Your task to perform on an android device: snooze an email in the gmail app Image 0: 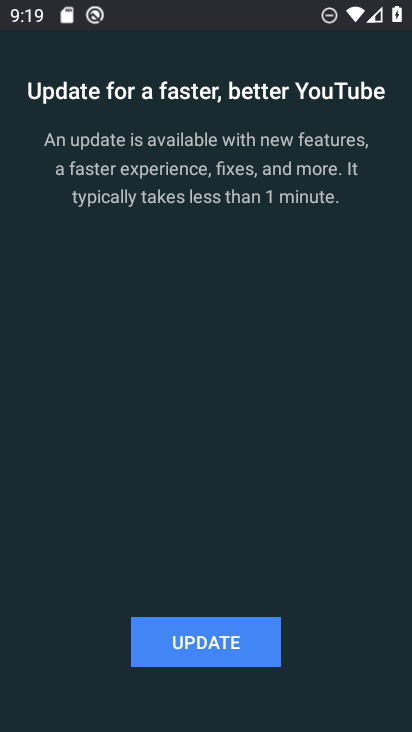
Step 0: press home button
Your task to perform on an android device: snooze an email in the gmail app Image 1: 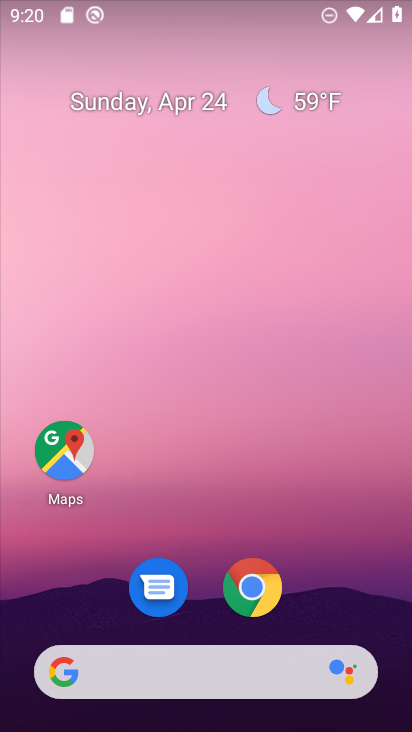
Step 1: drag from (206, 514) to (227, 47)
Your task to perform on an android device: snooze an email in the gmail app Image 2: 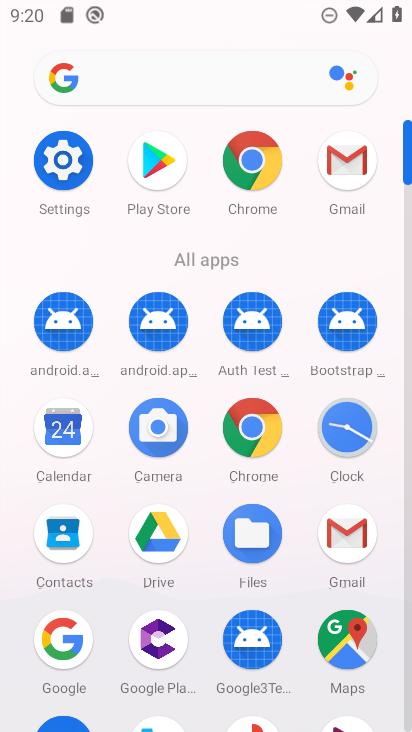
Step 2: click (344, 158)
Your task to perform on an android device: snooze an email in the gmail app Image 3: 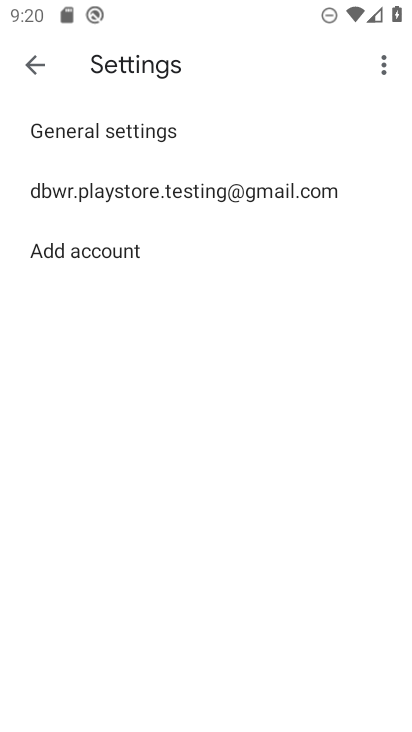
Step 3: press back button
Your task to perform on an android device: snooze an email in the gmail app Image 4: 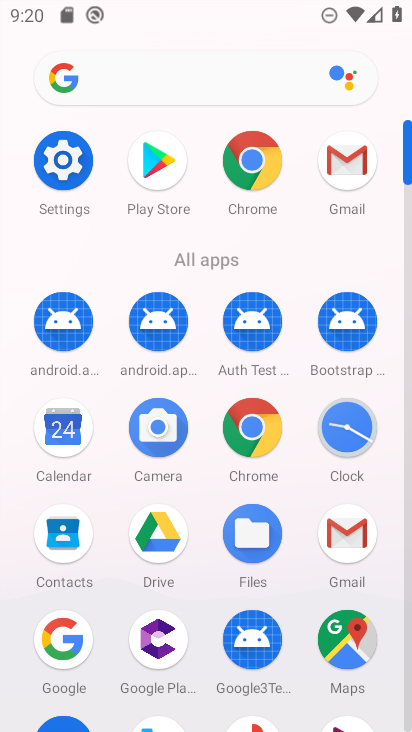
Step 4: click (345, 160)
Your task to perform on an android device: snooze an email in the gmail app Image 5: 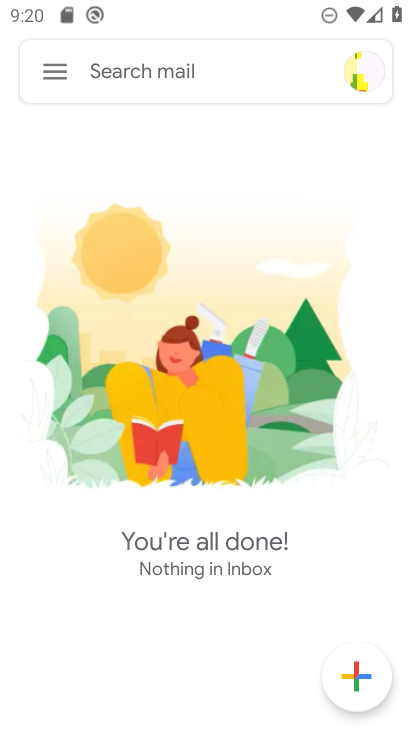
Step 5: click (53, 66)
Your task to perform on an android device: snooze an email in the gmail app Image 6: 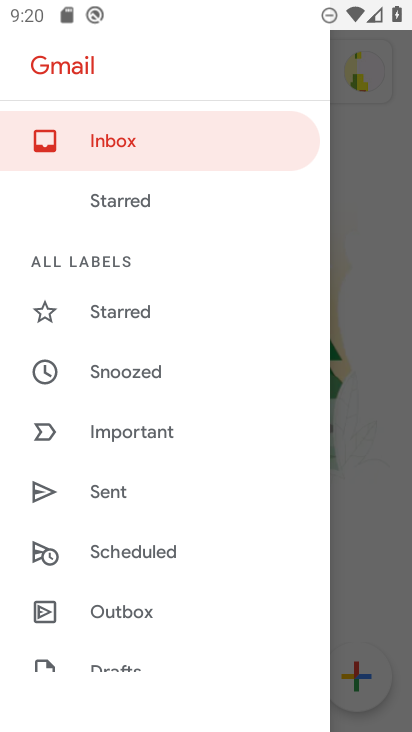
Step 6: drag from (174, 558) to (215, 485)
Your task to perform on an android device: snooze an email in the gmail app Image 7: 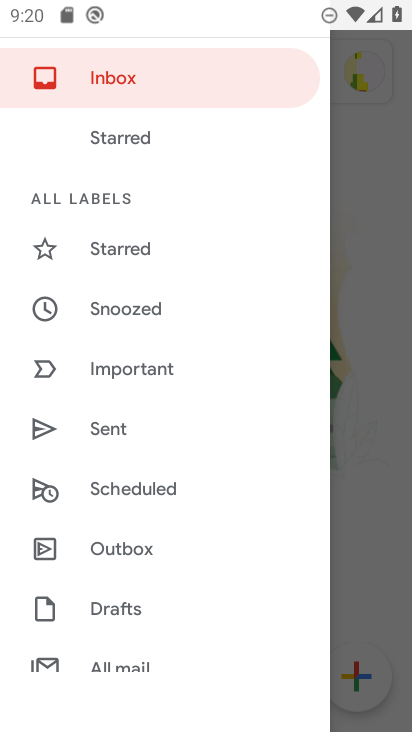
Step 7: drag from (162, 560) to (189, 506)
Your task to perform on an android device: snooze an email in the gmail app Image 8: 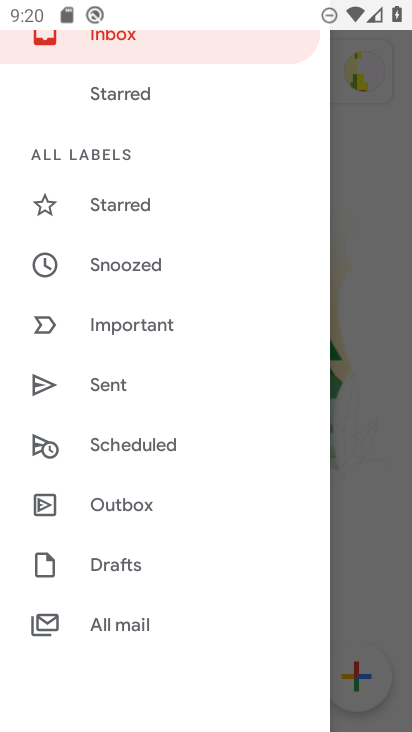
Step 8: click (129, 620)
Your task to perform on an android device: snooze an email in the gmail app Image 9: 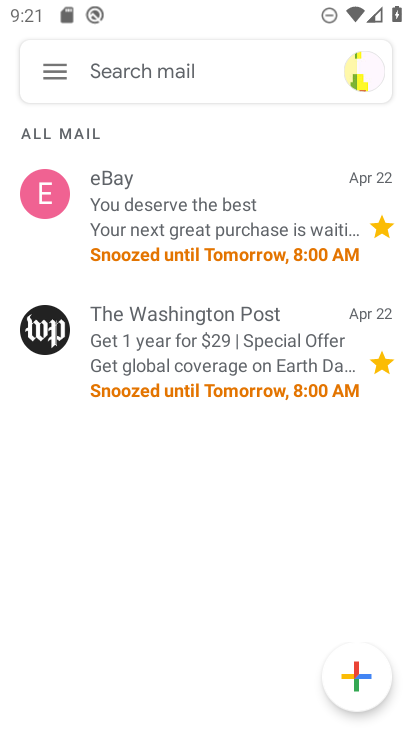
Step 9: click (150, 200)
Your task to perform on an android device: snooze an email in the gmail app Image 10: 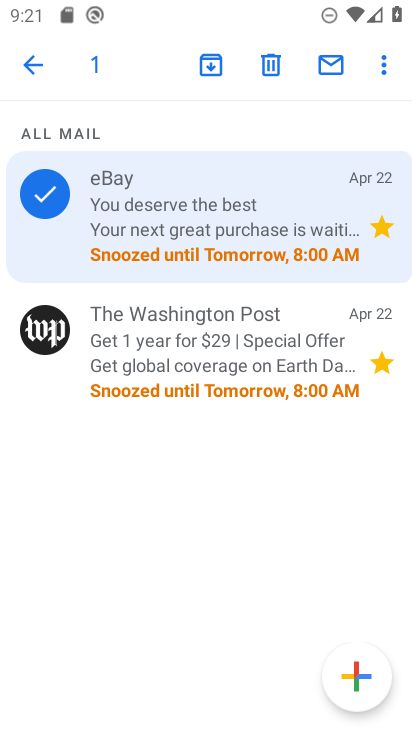
Step 10: click (384, 59)
Your task to perform on an android device: snooze an email in the gmail app Image 11: 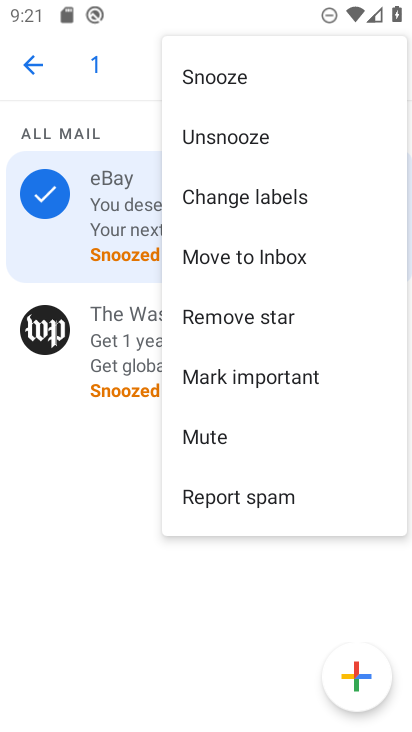
Step 11: click (217, 78)
Your task to perform on an android device: snooze an email in the gmail app Image 12: 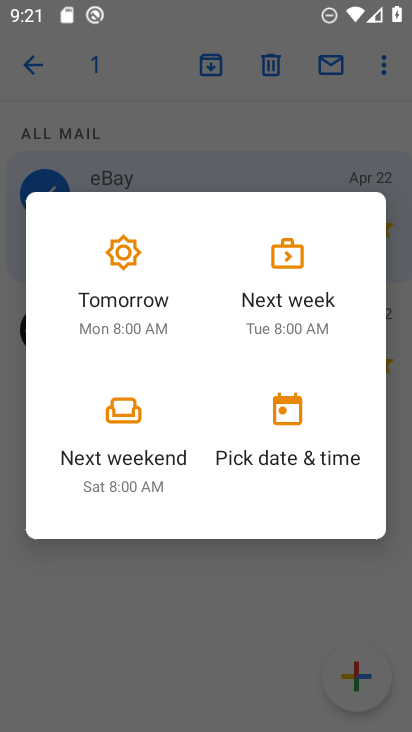
Step 12: click (291, 290)
Your task to perform on an android device: snooze an email in the gmail app Image 13: 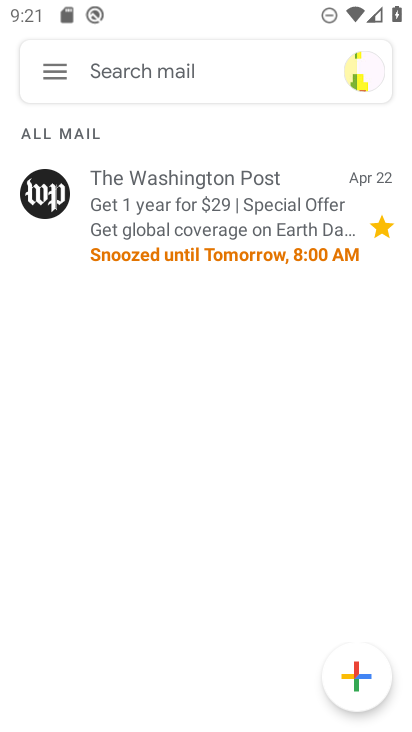
Step 13: task complete